Your task to perform on an android device: When is my next appointment? Image 0: 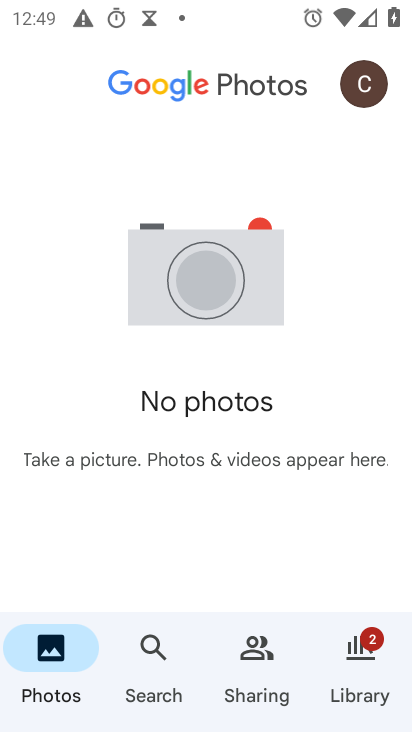
Step 0: press home button
Your task to perform on an android device: When is my next appointment? Image 1: 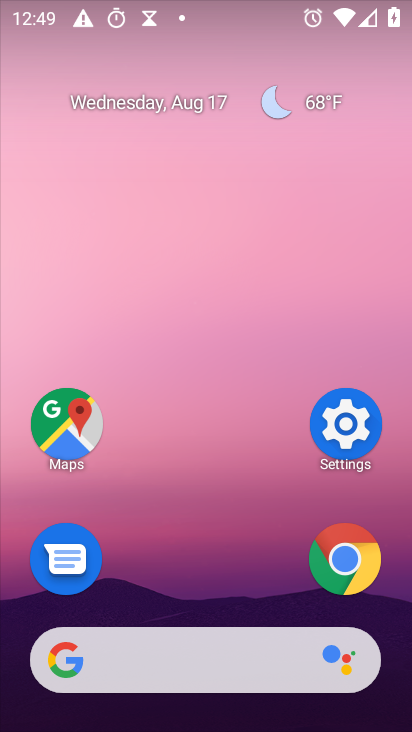
Step 1: drag from (174, 628) to (229, 110)
Your task to perform on an android device: When is my next appointment? Image 2: 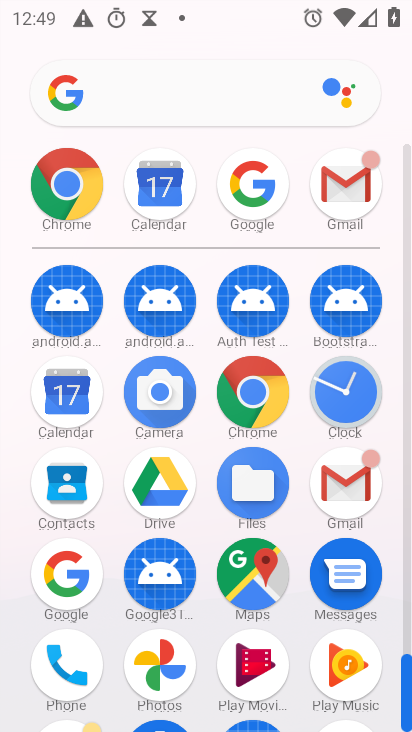
Step 2: click (72, 398)
Your task to perform on an android device: When is my next appointment? Image 3: 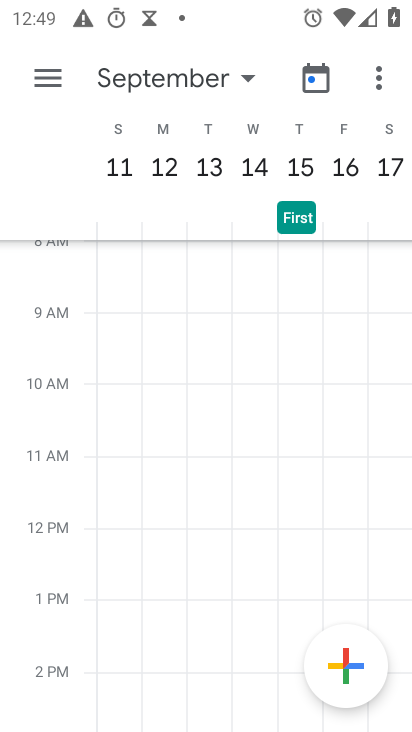
Step 3: click (128, 79)
Your task to perform on an android device: When is my next appointment? Image 4: 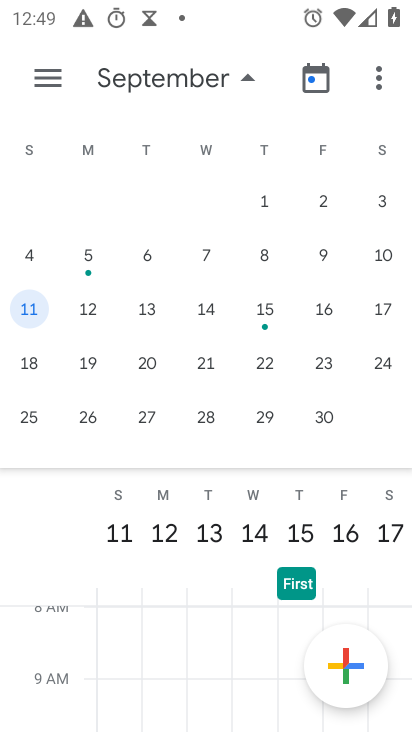
Step 4: drag from (60, 394) to (408, 363)
Your task to perform on an android device: When is my next appointment? Image 5: 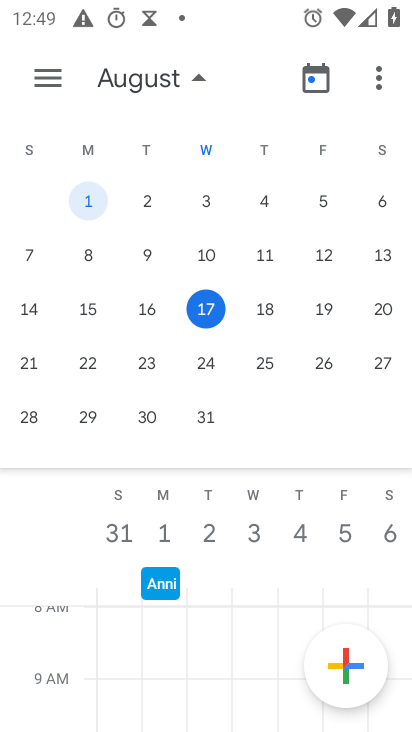
Step 5: click (207, 300)
Your task to perform on an android device: When is my next appointment? Image 6: 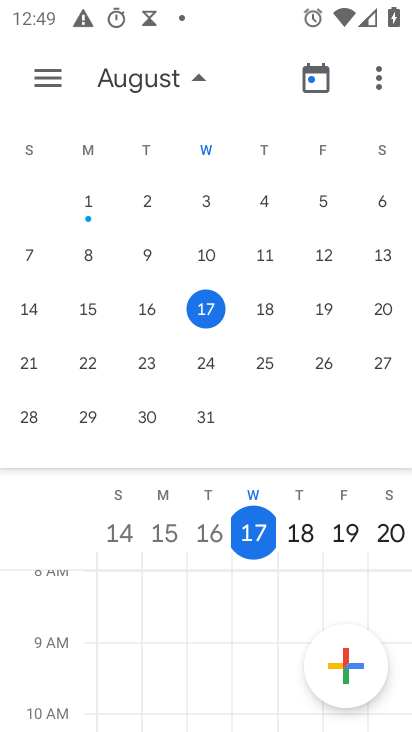
Step 6: click (41, 83)
Your task to perform on an android device: When is my next appointment? Image 7: 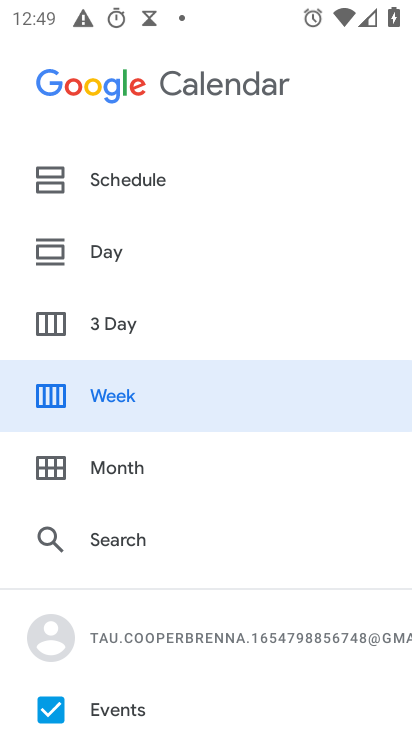
Step 7: click (125, 399)
Your task to perform on an android device: When is my next appointment? Image 8: 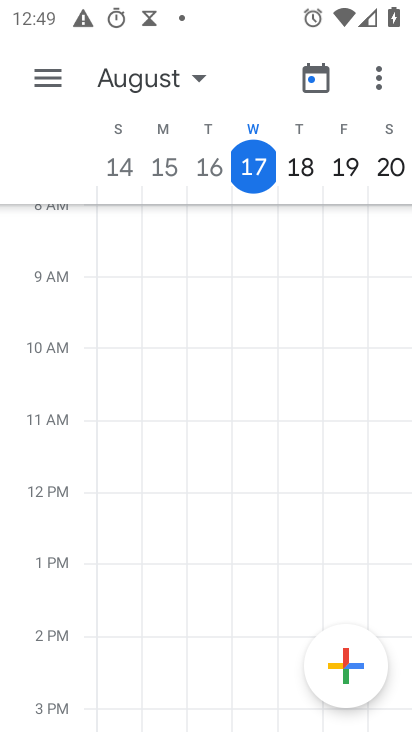
Step 8: click (61, 73)
Your task to perform on an android device: When is my next appointment? Image 9: 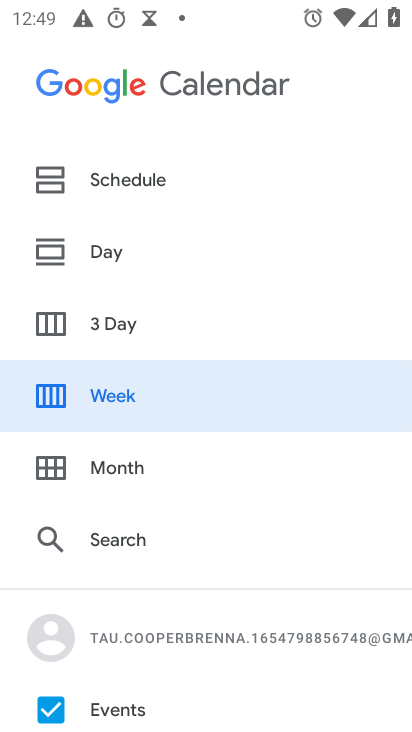
Step 9: click (123, 172)
Your task to perform on an android device: When is my next appointment? Image 10: 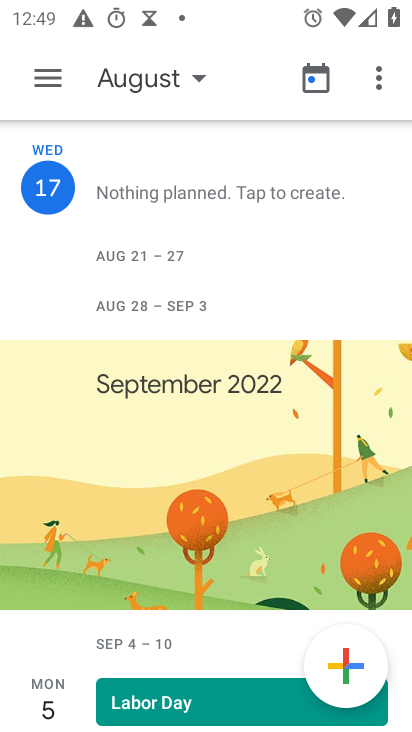
Step 10: task complete